Your task to perform on an android device: What's the weather today? Image 0: 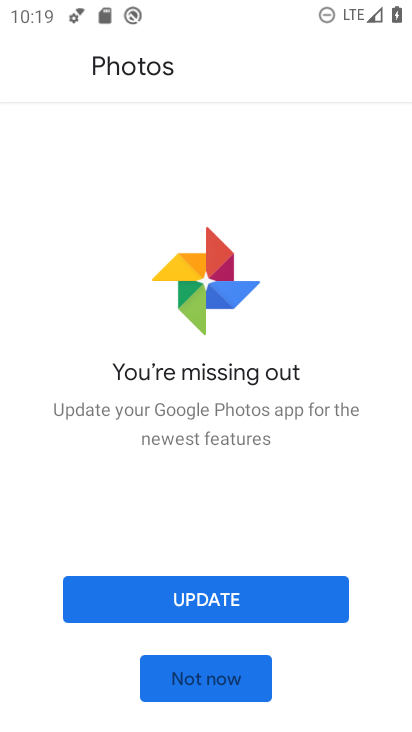
Step 0: press home button
Your task to perform on an android device: What's the weather today? Image 1: 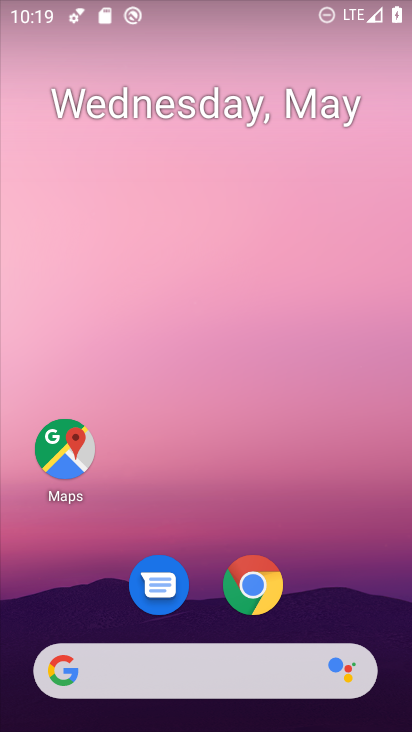
Step 1: click (108, 666)
Your task to perform on an android device: What's the weather today? Image 2: 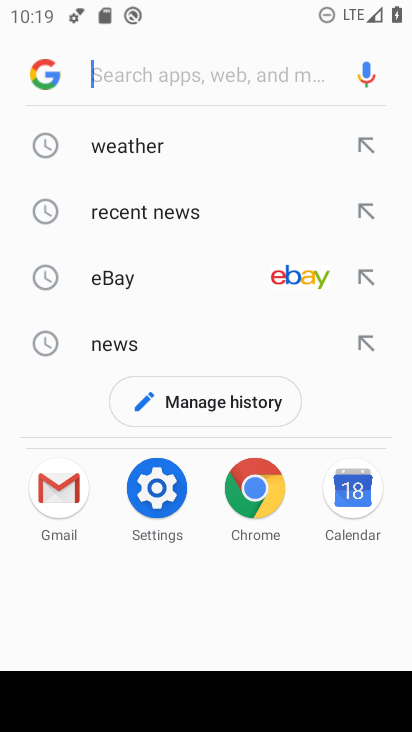
Step 2: click (133, 137)
Your task to perform on an android device: What's the weather today? Image 3: 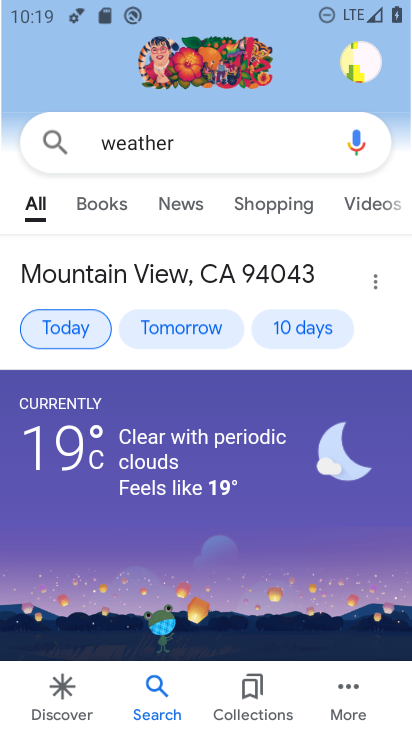
Step 3: click (65, 328)
Your task to perform on an android device: What's the weather today? Image 4: 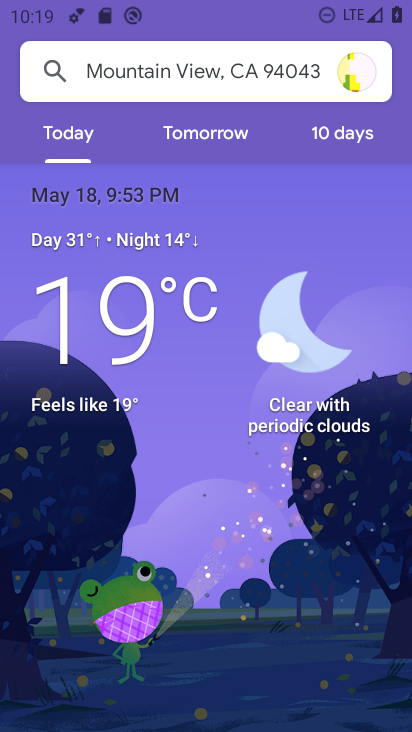
Step 4: task complete